Your task to perform on an android device: What's the weather today? Image 0: 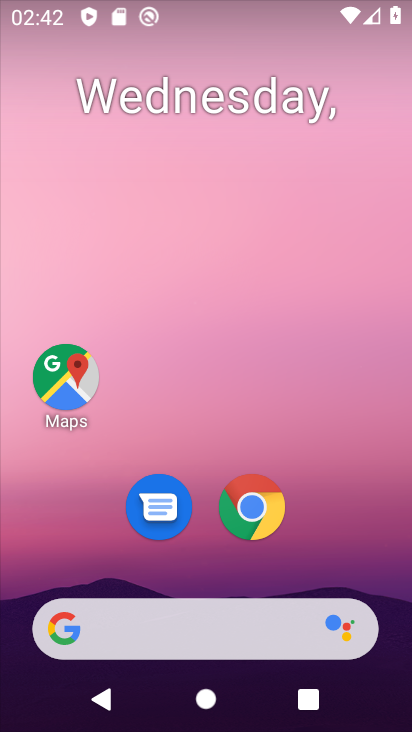
Step 0: drag from (37, 204) to (409, 186)
Your task to perform on an android device: What's the weather today? Image 1: 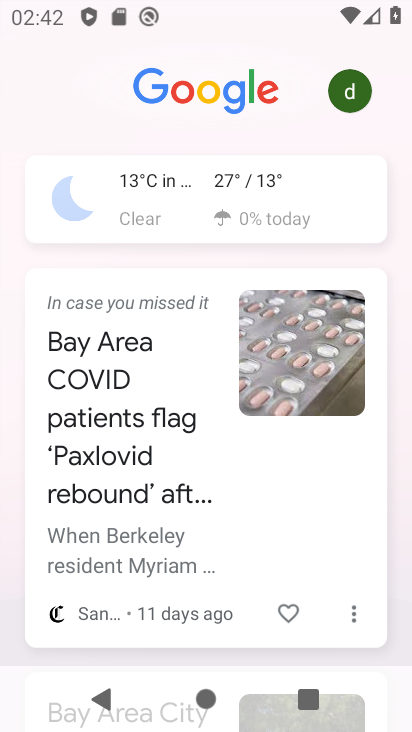
Step 1: click (287, 168)
Your task to perform on an android device: What's the weather today? Image 2: 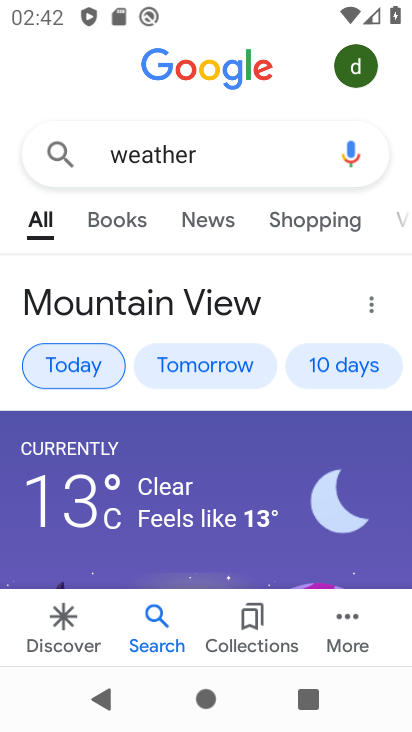
Step 2: task complete